Your task to perform on an android device: Open eBay Image 0: 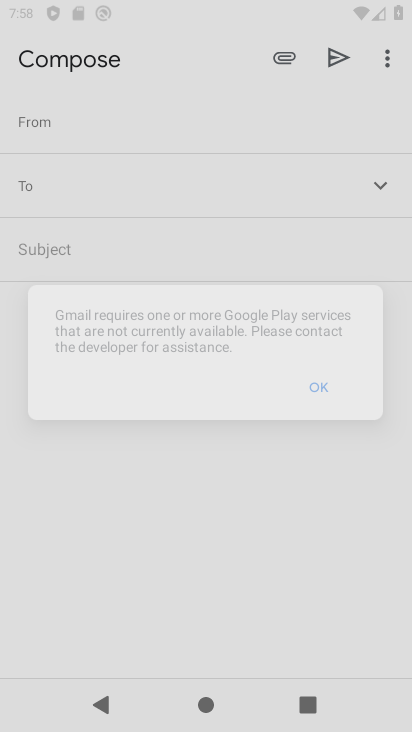
Step 0: click (308, 230)
Your task to perform on an android device: Open eBay Image 1: 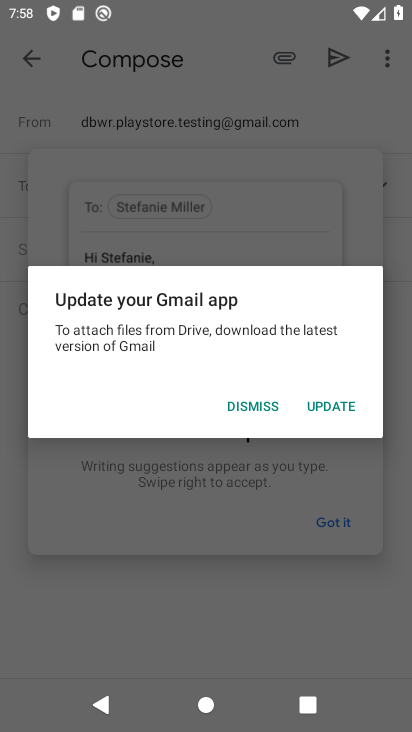
Step 1: press home button
Your task to perform on an android device: Open eBay Image 2: 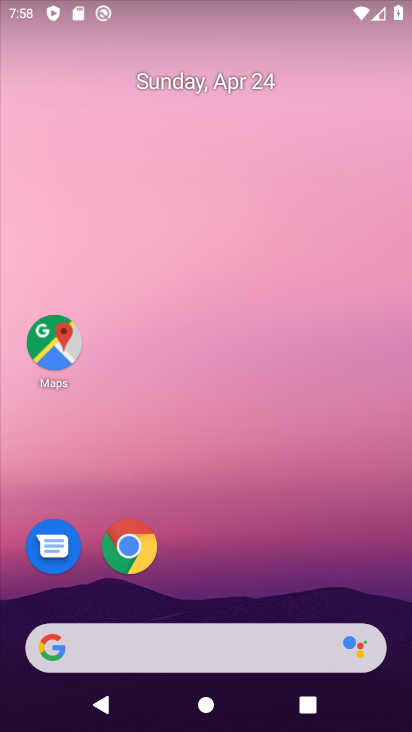
Step 2: click (119, 535)
Your task to perform on an android device: Open eBay Image 3: 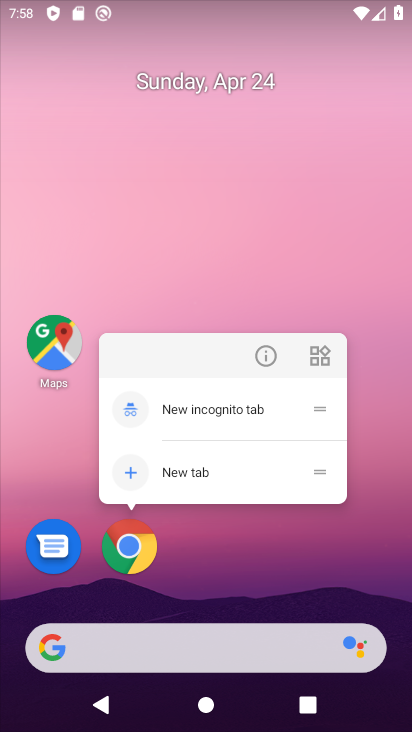
Step 3: click (264, 363)
Your task to perform on an android device: Open eBay Image 4: 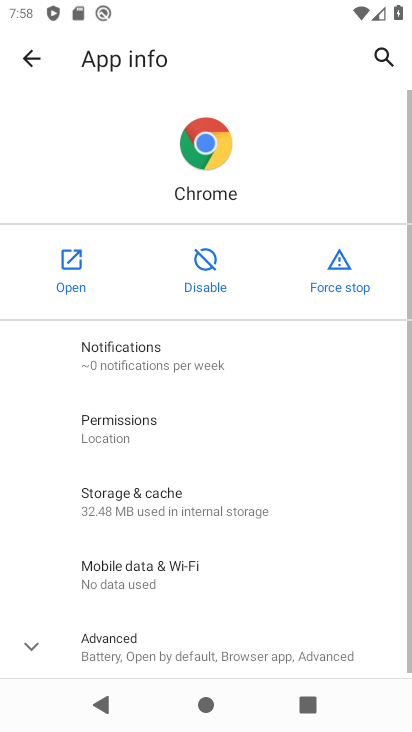
Step 4: click (70, 280)
Your task to perform on an android device: Open eBay Image 5: 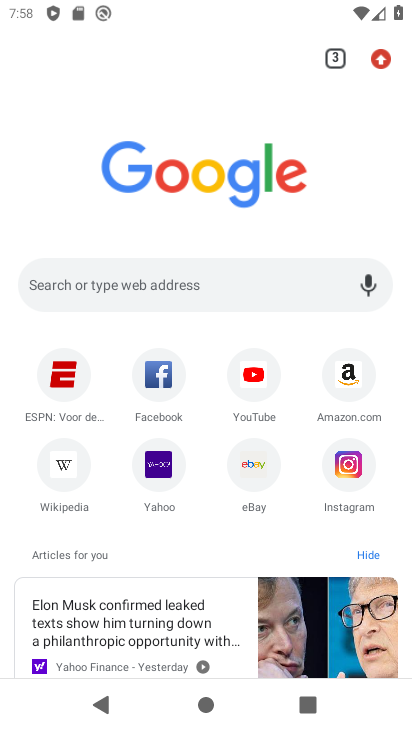
Step 5: click (256, 470)
Your task to perform on an android device: Open eBay Image 6: 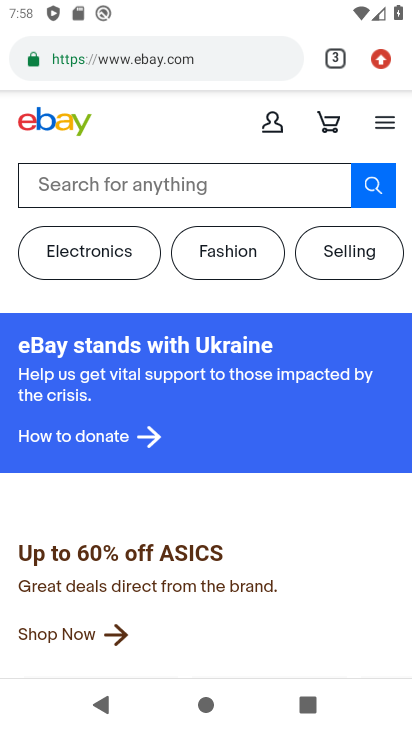
Step 6: task complete